Your task to perform on an android device: turn off priority inbox in the gmail app Image 0: 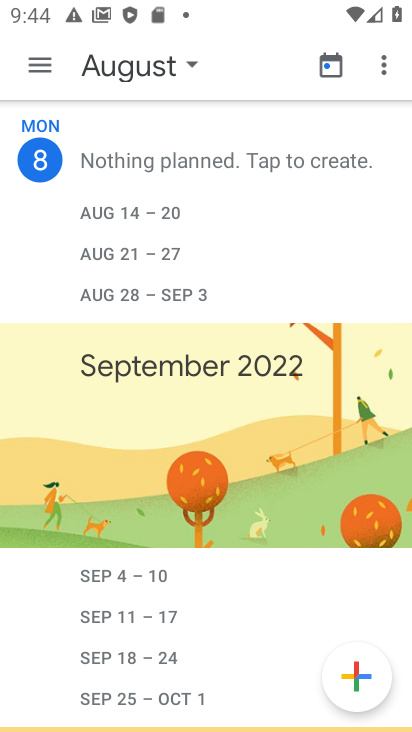
Step 0: press home button
Your task to perform on an android device: turn off priority inbox in the gmail app Image 1: 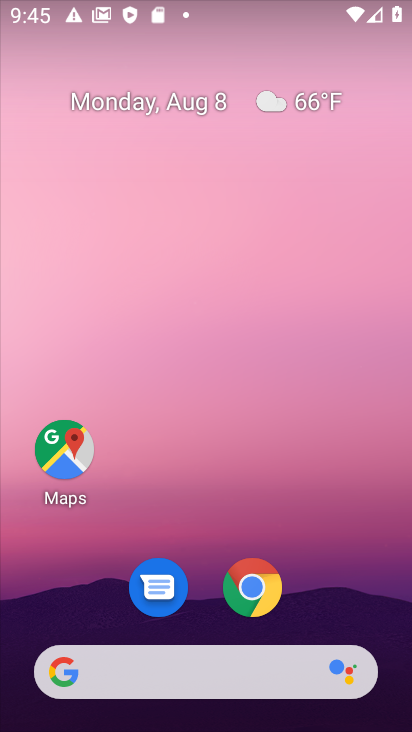
Step 1: click (188, 126)
Your task to perform on an android device: turn off priority inbox in the gmail app Image 2: 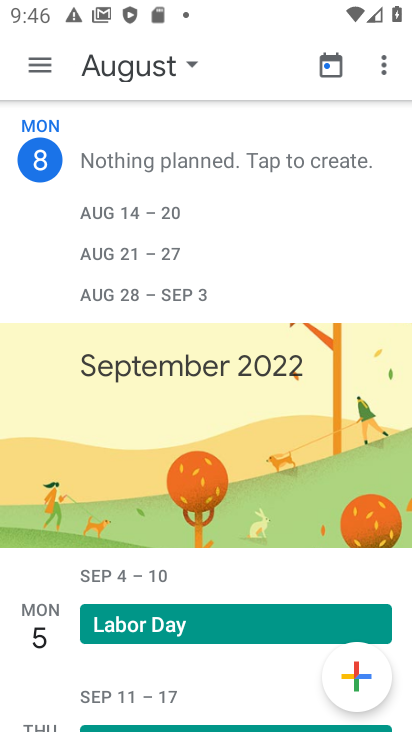
Step 2: press home button
Your task to perform on an android device: turn off priority inbox in the gmail app Image 3: 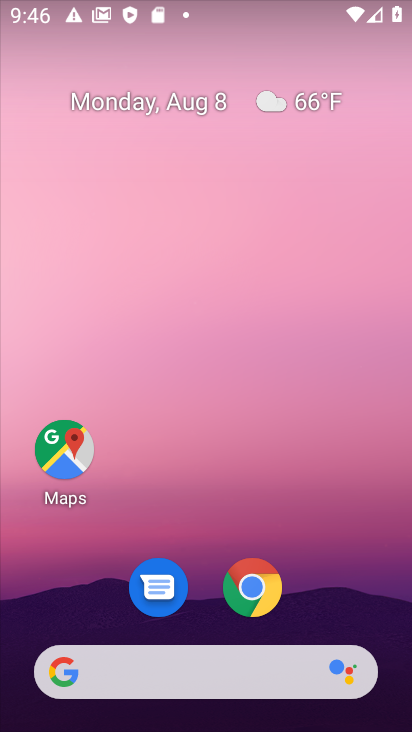
Step 3: drag from (248, 568) to (410, 391)
Your task to perform on an android device: turn off priority inbox in the gmail app Image 4: 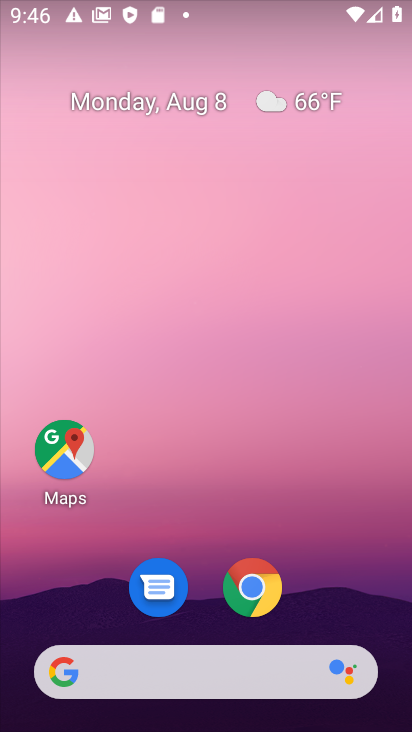
Step 4: drag from (175, 708) to (179, 14)
Your task to perform on an android device: turn off priority inbox in the gmail app Image 5: 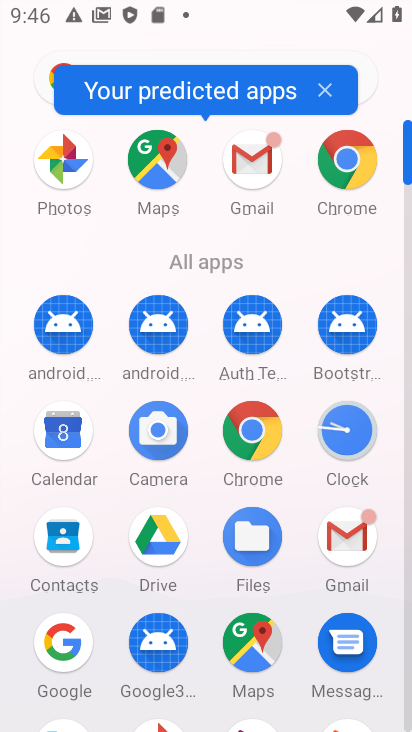
Step 5: click (345, 548)
Your task to perform on an android device: turn off priority inbox in the gmail app Image 6: 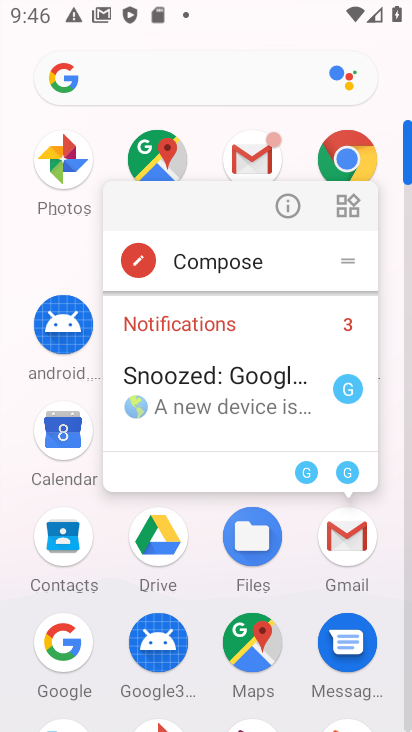
Step 6: click (345, 548)
Your task to perform on an android device: turn off priority inbox in the gmail app Image 7: 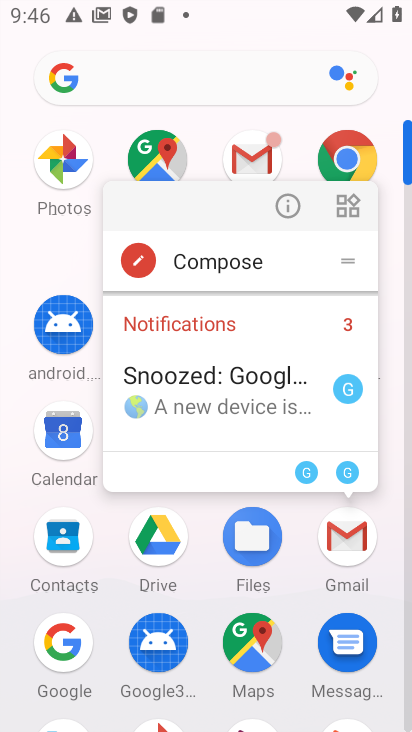
Step 7: click (345, 548)
Your task to perform on an android device: turn off priority inbox in the gmail app Image 8: 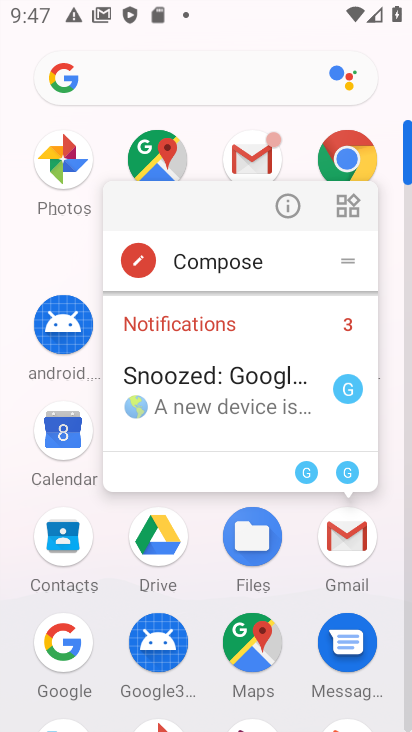
Step 8: click (342, 543)
Your task to perform on an android device: turn off priority inbox in the gmail app Image 9: 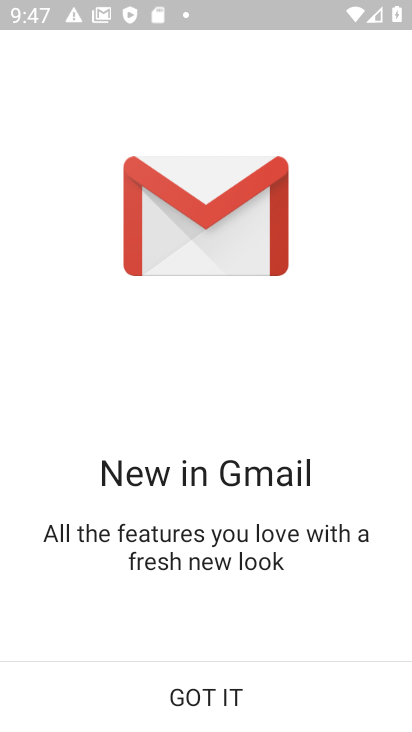
Step 9: click (209, 705)
Your task to perform on an android device: turn off priority inbox in the gmail app Image 10: 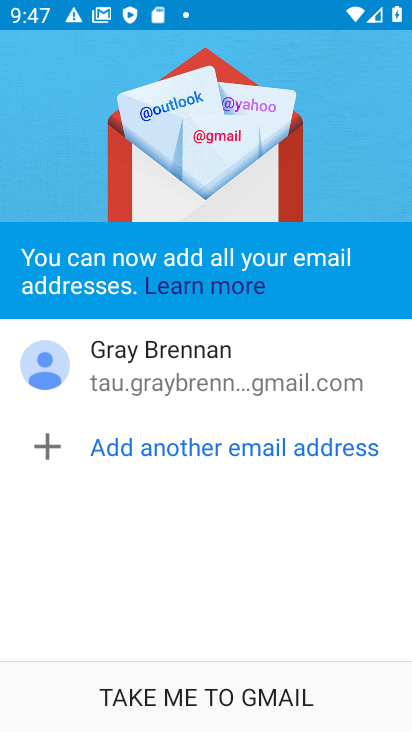
Step 10: click (209, 705)
Your task to perform on an android device: turn off priority inbox in the gmail app Image 11: 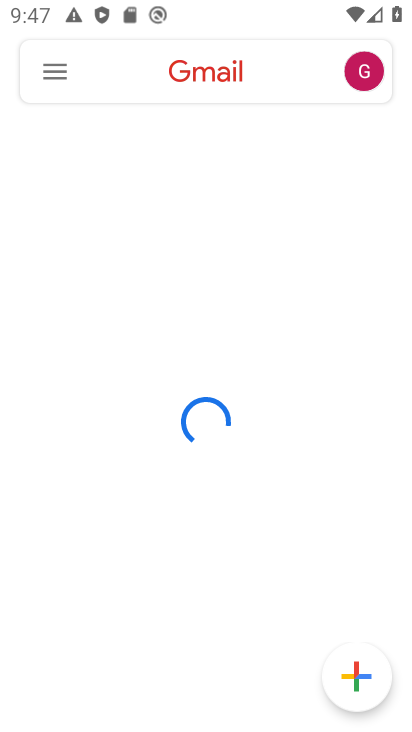
Step 11: click (60, 70)
Your task to perform on an android device: turn off priority inbox in the gmail app Image 12: 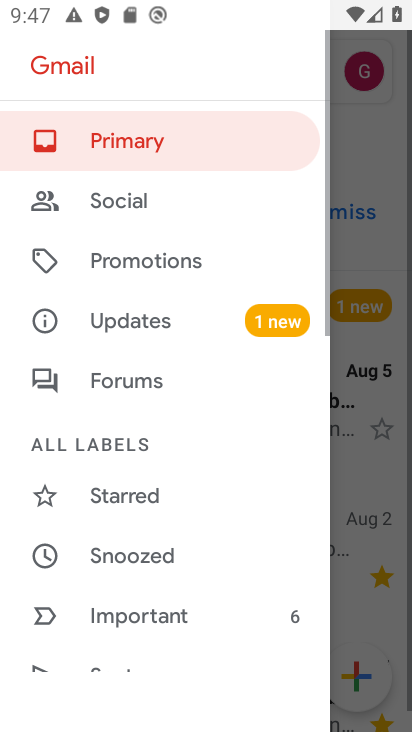
Step 12: drag from (152, 618) to (405, 486)
Your task to perform on an android device: turn off priority inbox in the gmail app Image 13: 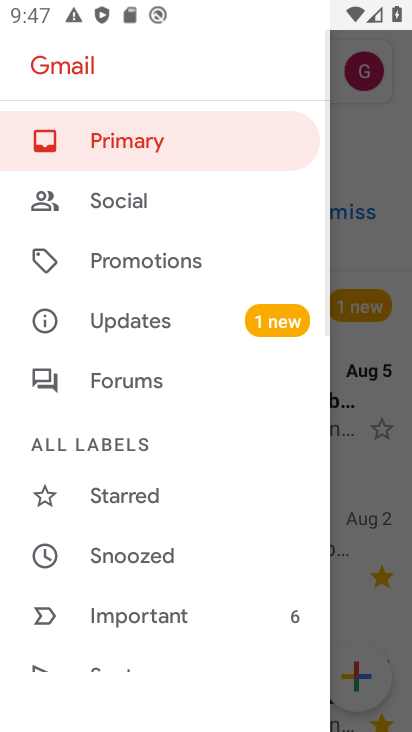
Step 13: drag from (115, 576) to (329, 6)
Your task to perform on an android device: turn off priority inbox in the gmail app Image 14: 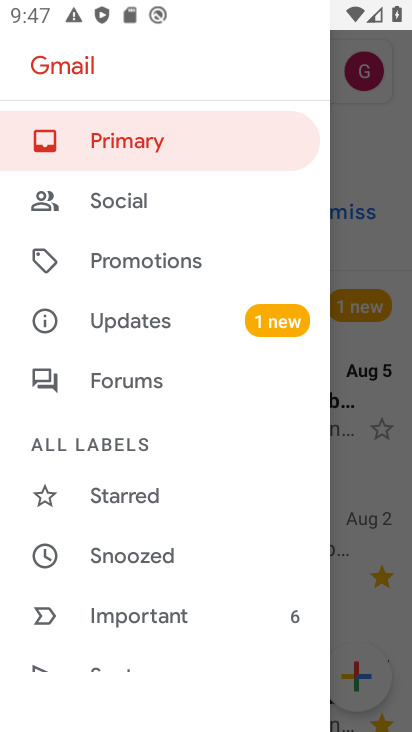
Step 14: drag from (90, 505) to (408, 56)
Your task to perform on an android device: turn off priority inbox in the gmail app Image 15: 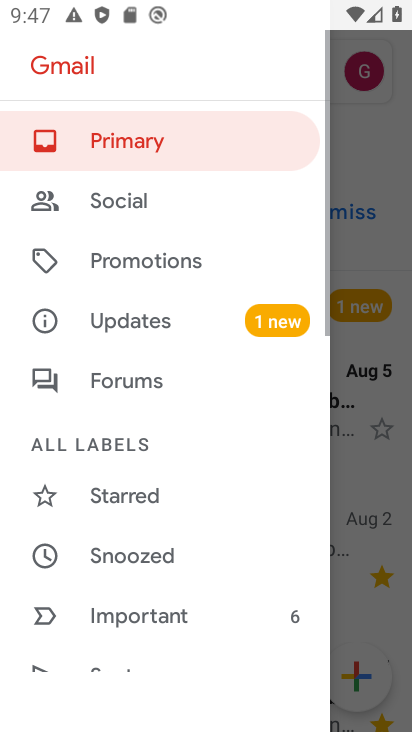
Step 15: drag from (134, 623) to (323, 520)
Your task to perform on an android device: turn off priority inbox in the gmail app Image 16: 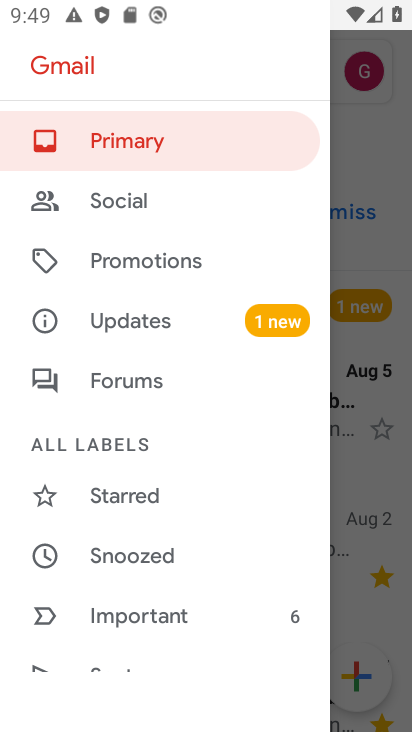
Step 16: drag from (160, 530) to (173, 47)
Your task to perform on an android device: turn off priority inbox in the gmail app Image 17: 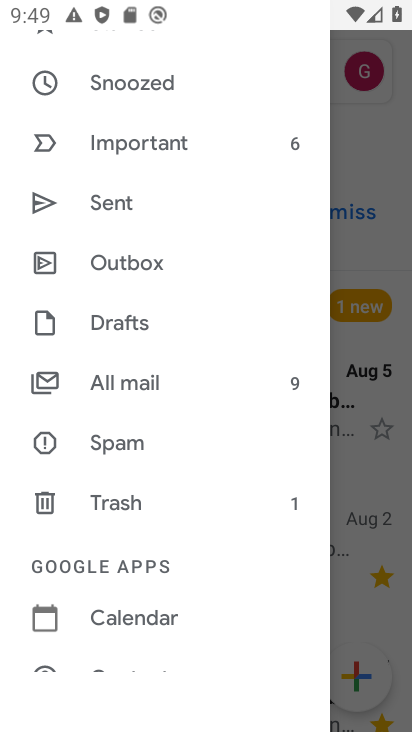
Step 17: drag from (128, 422) to (192, 8)
Your task to perform on an android device: turn off priority inbox in the gmail app Image 18: 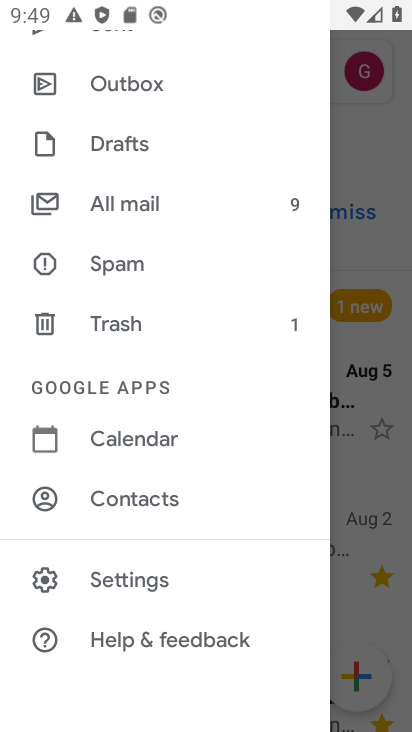
Step 18: click (177, 581)
Your task to perform on an android device: turn off priority inbox in the gmail app Image 19: 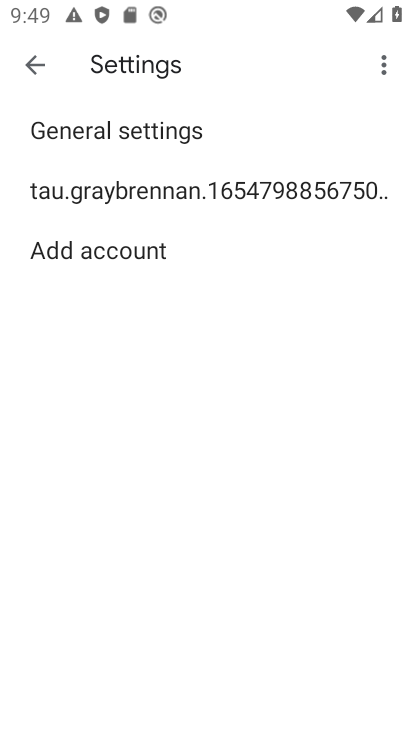
Step 19: click (145, 192)
Your task to perform on an android device: turn off priority inbox in the gmail app Image 20: 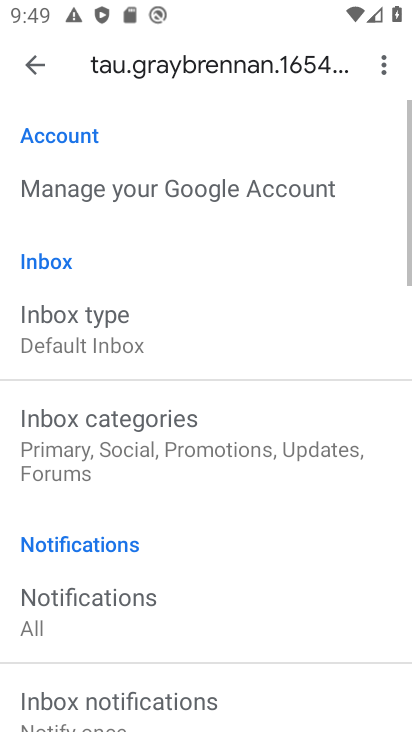
Step 20: click (147, 330)
Your task to perform on an android device: turn off priority inbox in the gmail app Image 21: 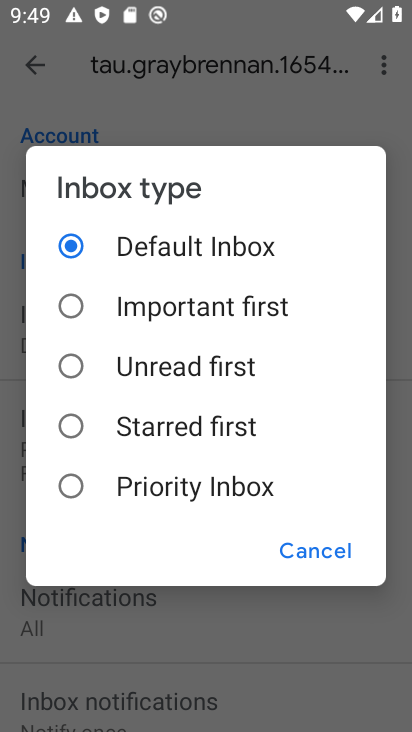
Step 21: click (188, 489)
Your task to perform on an android device: turn off priority inbox in the gmail app Image 22: 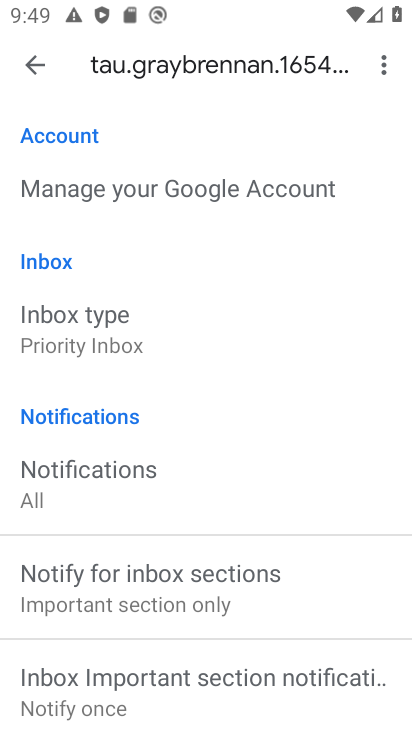
Step 22: task complete